Your task to perform on an android device: Open Chrome and go to settings Image 0: 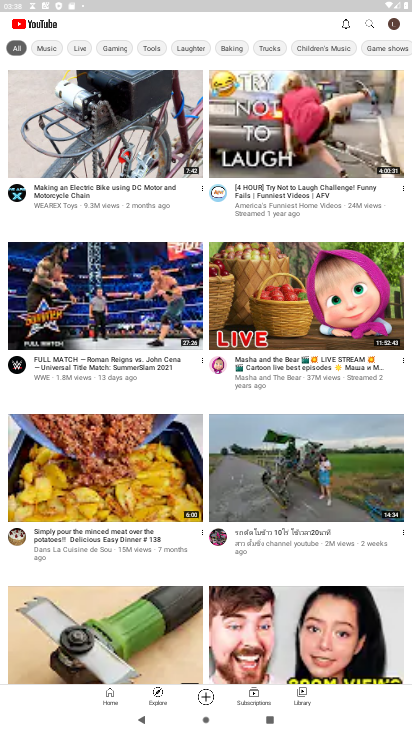
Step 0: press home button
Your task to perform on an android device: Open Chrome and go to settings Image 1: 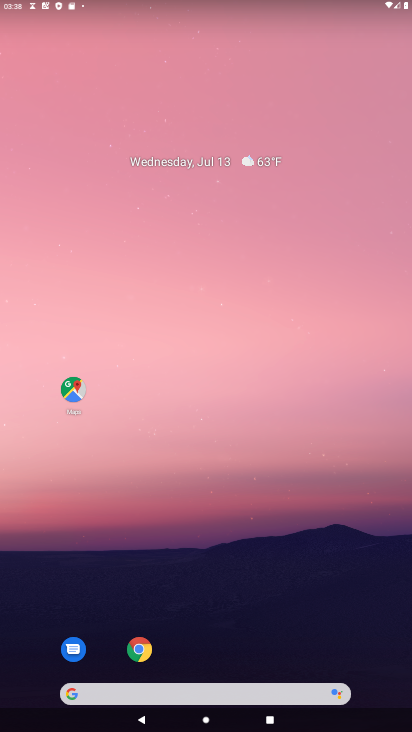
Step 1: click (131, 649)
Your task to perform on an android device: Open Chrome and go to settings Image 2: 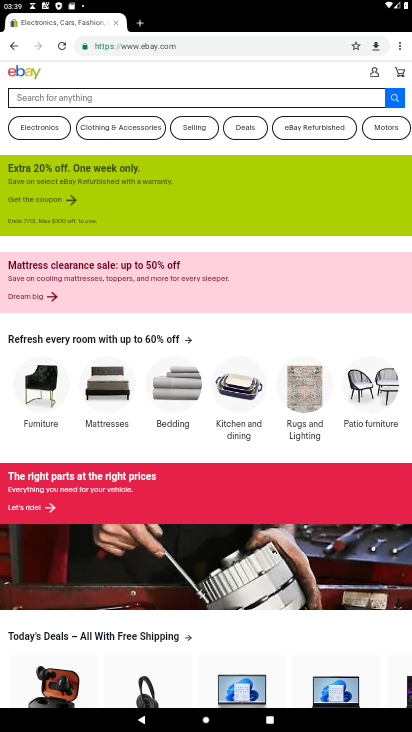
Step 2: click (394, 51)
Your task to perform on an android device: Open Chrome and go to settings Image 3: 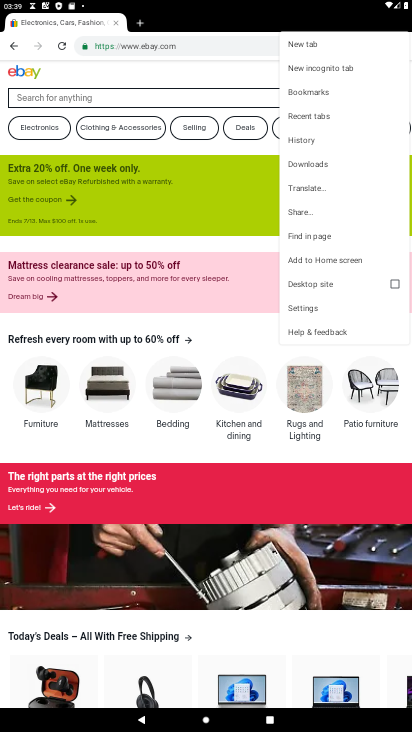
Step 3: click (301, 312)
Your task to perform on an android device: Open Chrome and go to settings Image 4: 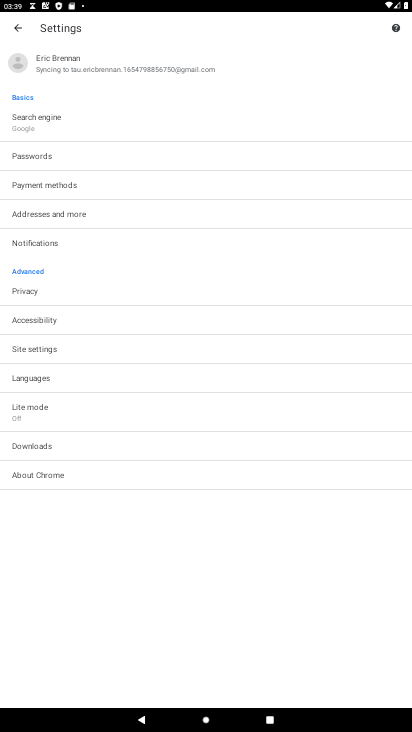
Step 4: task complete